Your task to perform on an android device: Open notification settings Image 0: 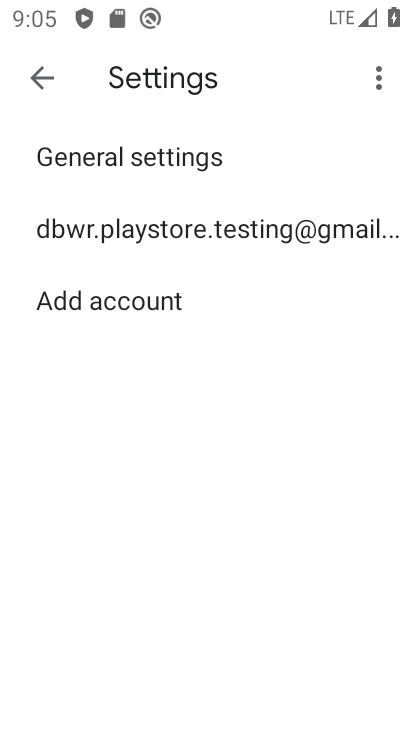
Step 0: press home button
Your task to perform on an android device: Open notification settings Image 1: 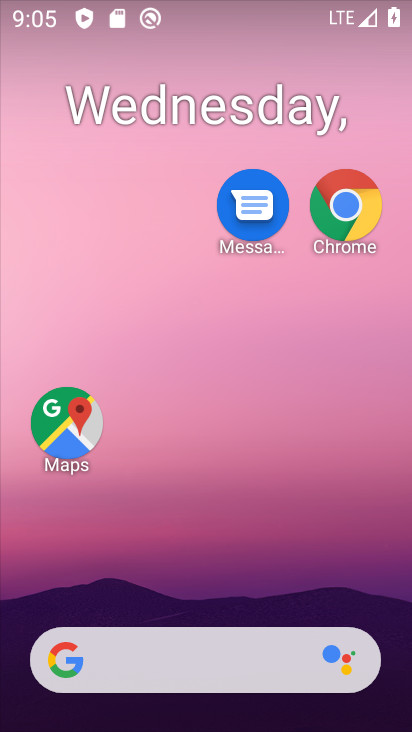
Step 1: drag from (167, 530) to (236, 1)
Your task to perform on an android device: Open notification settings Image 2: 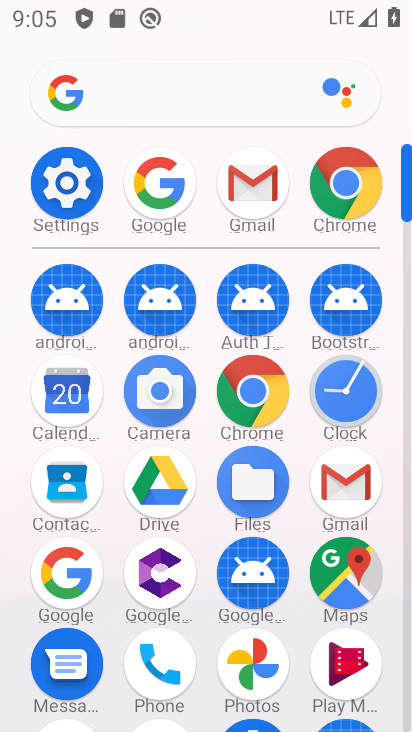
Step 2: click (67, 186)
Your task to perform on an android device: Open notification settings Image 3: 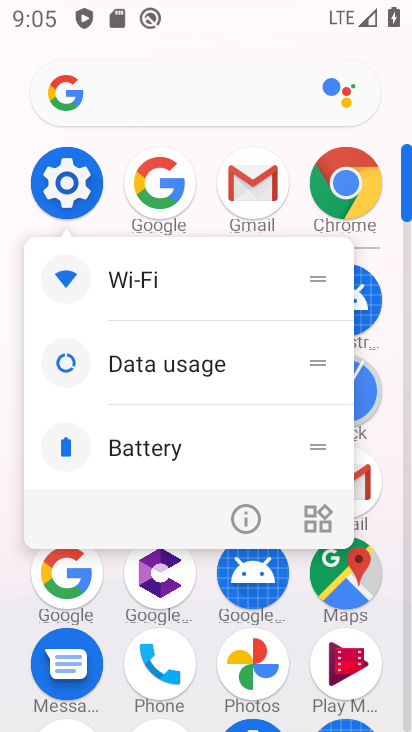
Step 3: click (249, 494)
Your task to perform on an android device: Open notification settings Image 4: 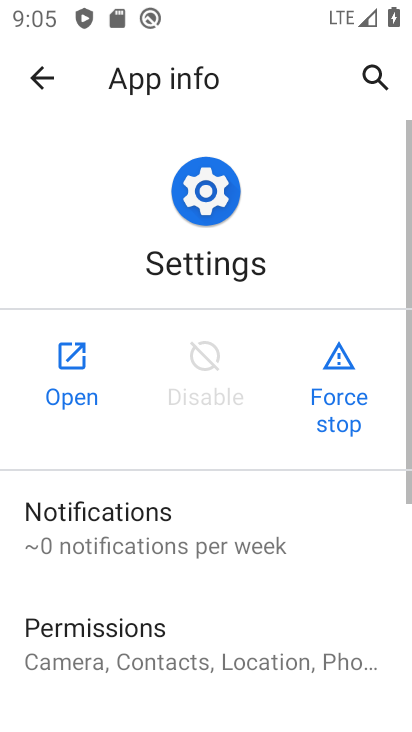
Step 4: click (80, 371)
Your task to perform on an android device: Open notification settings Image 5: 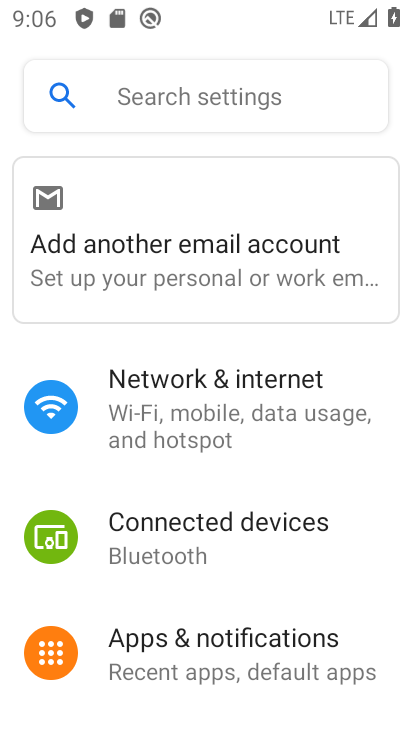
Step 5: click (201, 655)
Your task to perform on an android device: Open notification settings Image 6: 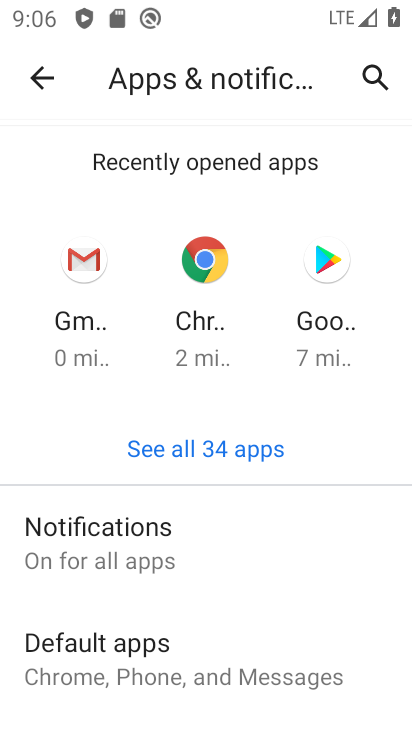
Step 6: click (170, 516)
Your task to perform on an android device: Open notification settings Image 7: 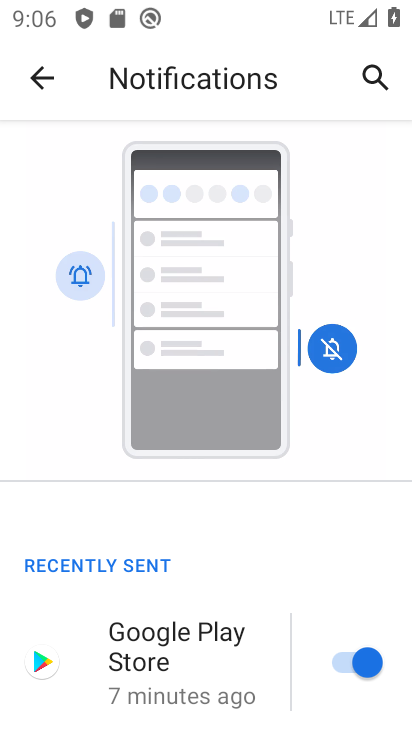
Step 7: drag from (257, 546) to (298, 310)
Your task to perform on an android device: Open notification settings Image 8: 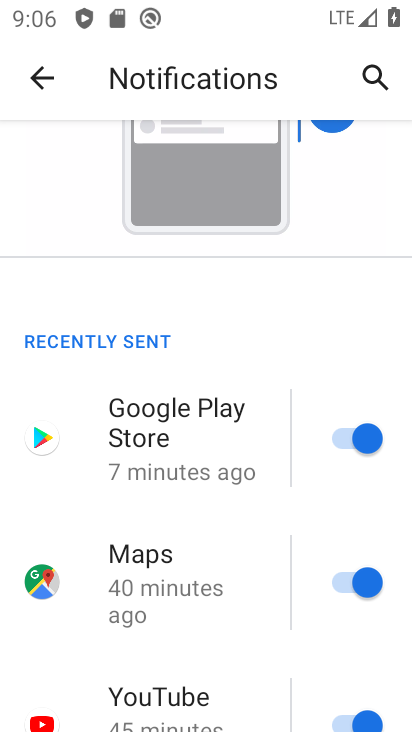
Step 8: drag from (191, 563) to (242, 176)
Your task to perform on an android device: Open notification settings Image 9: 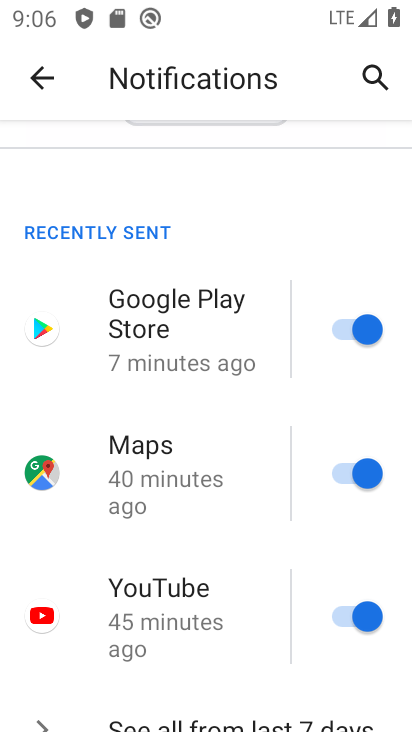
Step 9: drag from (205, 618) to (297, 245)
Your task to perform on an android device: Open notification settings Image 10: 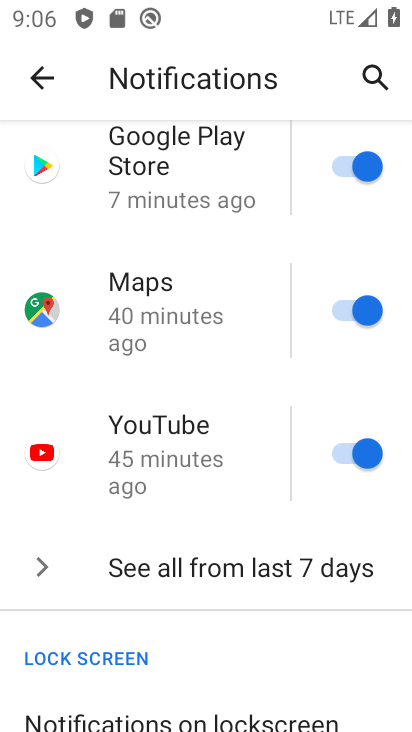
Step 10: drag from (223, 520) to (406, 382)
Your task to perform on an android device: Open notification settings Image 11: 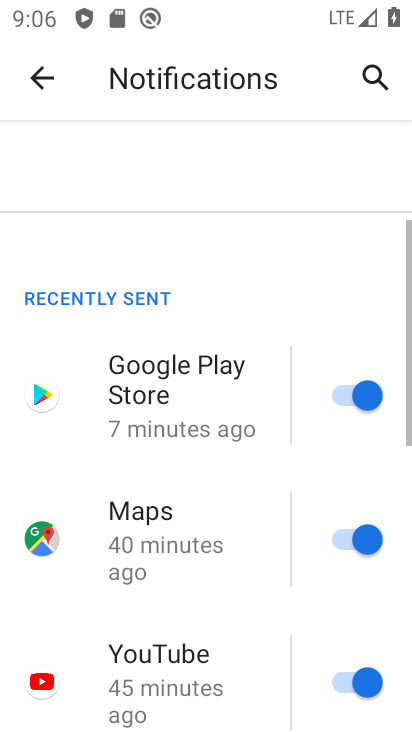
Step 11: drag from (157, 609) to (268, 241)
Your task to perform on an android device: Open notification settings Image 12: 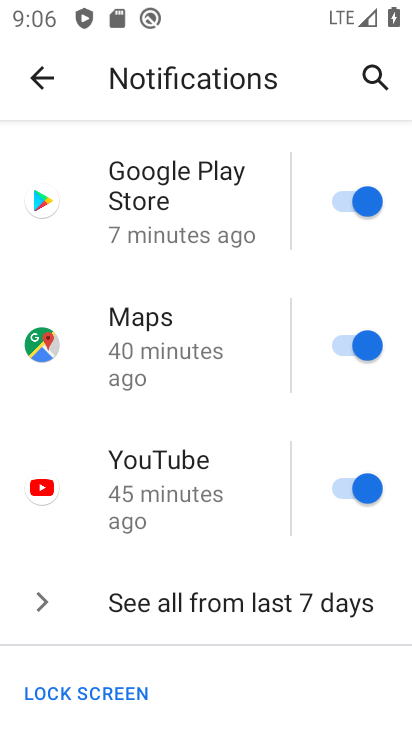
Step 12: drag from (212, 575) to (331, 188)
Your task to perform on an android device: Open notification settings Image 13: 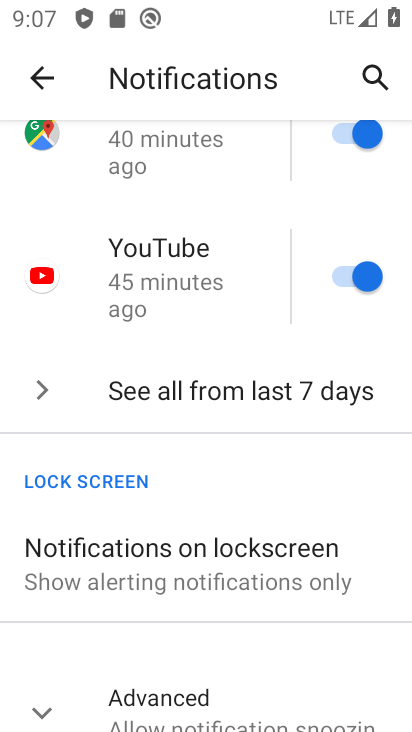
Step 13: click (357, 268)
Your task to perform on an android device: Open notification settings Image 14: 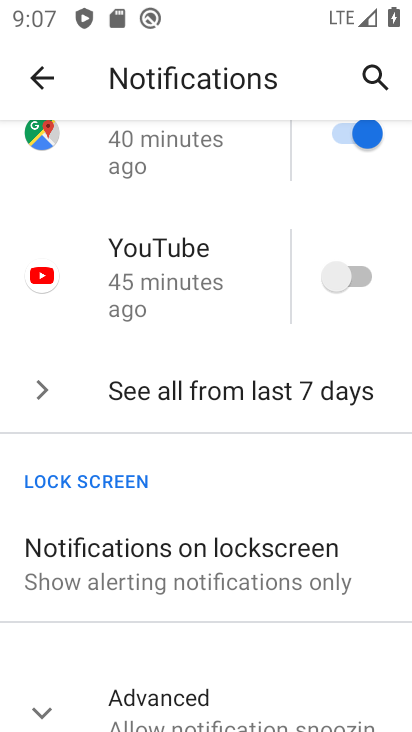
Step 14: task complete